Your task to perform on an android device: Go to privacy settings Image 0: 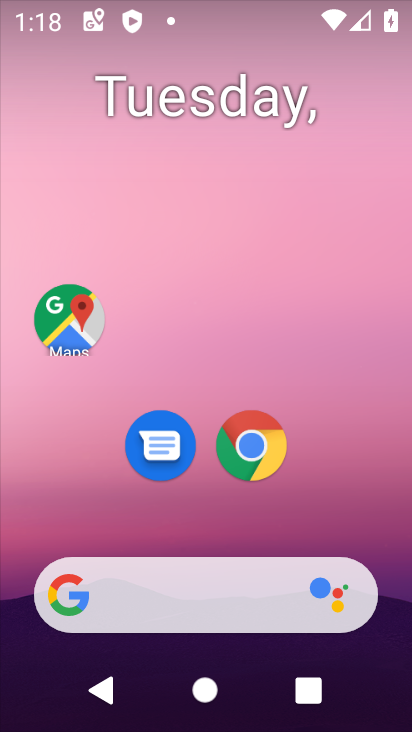
Step 0: drag from (333, 518) to (360, 85)
Your task to perform on an android device: Go to privacy settings Image 1: 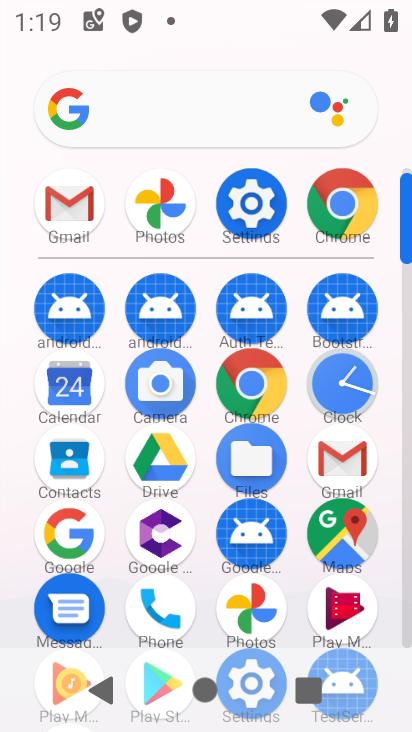
Step 1: click (262, 176)
Your task to perform on an android device: Go to privacy settings Image 2: 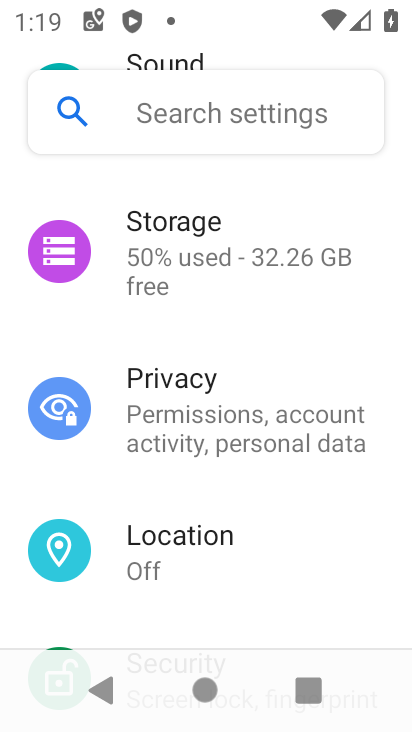
Step 2: click (168, 439)
Your task to perform on an android device: Go to privacy settings Image 3: 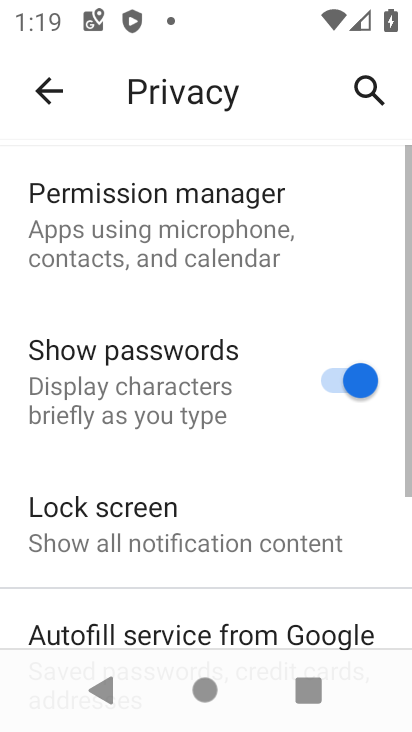
Step 3: task complete